Your task to perform on an android device: Clear the cart on target.com. Search for "logitech g pro" on target.com, select the first entry, and add it to the cart. Image 0: 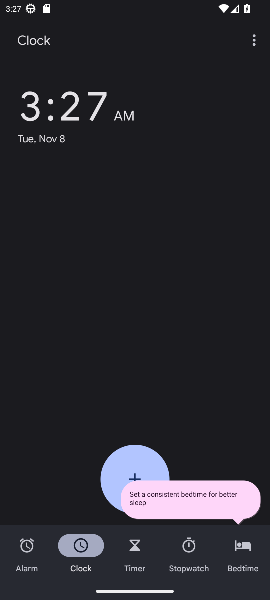
Step 0: press home button
Your task to perform on an android device: Clear the cart on target.com. Search for "logitech g pro" on target.com, select the first entry, and add it to the cart. Image 1: 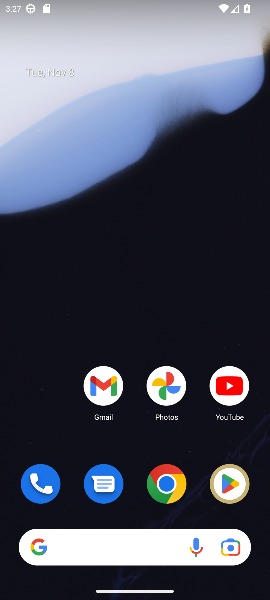
Step 1: click (158, 493)
Your task to perform on an android device: Clear the cart on target.com. Search for "logitech g pro" on target.com, select the first entry, and add it to the cart. Image 2: 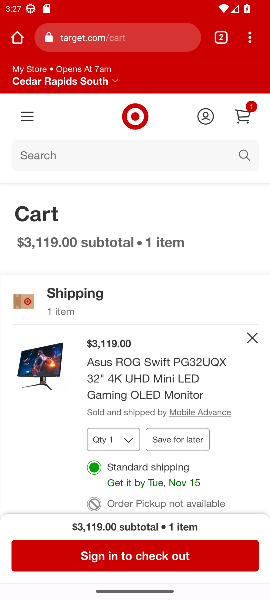
Step 2: click (249, 339)
Your task to perform on an android device: Clear the cart on target.com. Search for "logitech g pro" on target.com, select the first entry, and add it to the cart. Image 3: 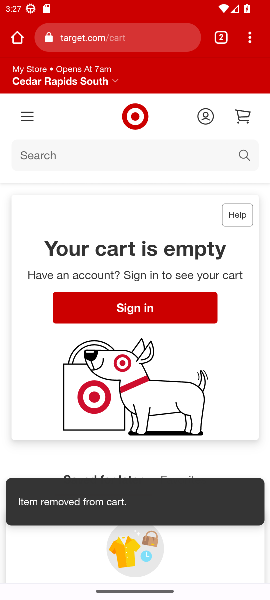
Step 3: click (49, 146)
Your task to perform on an android device: Clear the cart on target.com. Search for "logitech g pro" on target.com, select the first entry, and add it to the cart. Image 4: 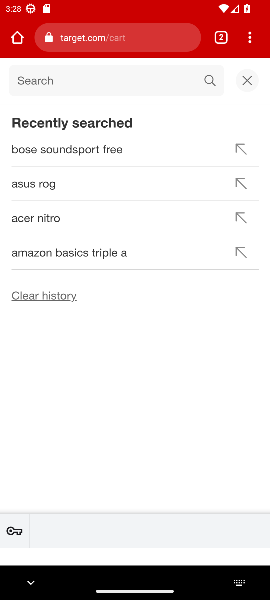
Step 4: type "logitech g pro"
Your task to perform on an android device: Clear the cart on target.com. Search for "logitech g pro" on target.com, select the first entry, and add it to the cart. Image 5: 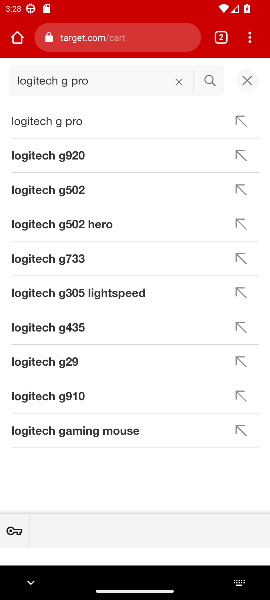
Step 5: click (210, 88)
Your task to perform on an android device: Clear the cart on target.com. Search for "logitech g pro" on target.com, select the first entry, and add it to the cart. Image 6: 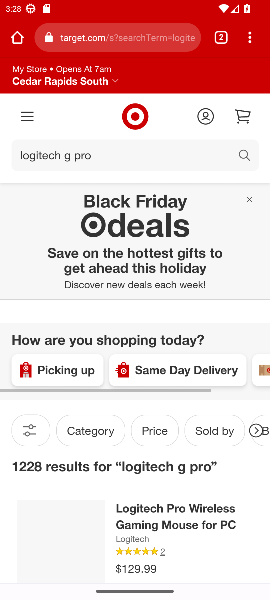
Step 6: task complete